Your task to perform on an android device: set the timer Image 0: 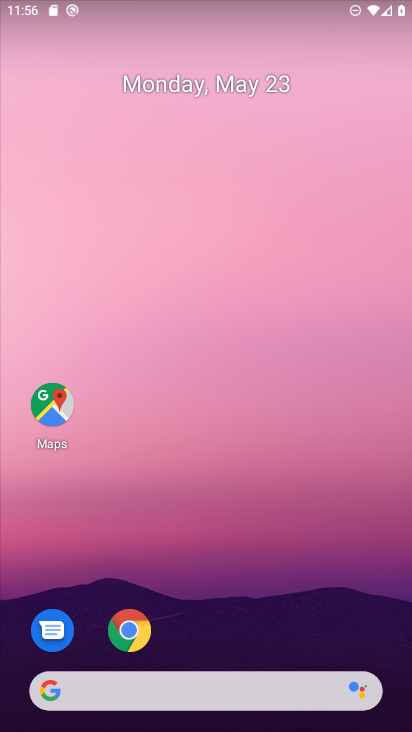
Step 0: drag from (191, 645) to (292, 181)
Your task to perform on an android device: set the timer Image 1: 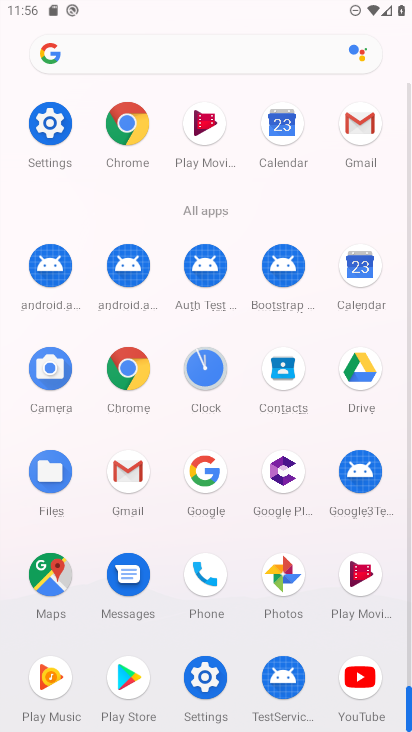
Step 1: click (203, 369)
Your task to perform on an android device: set the timer Image 2: 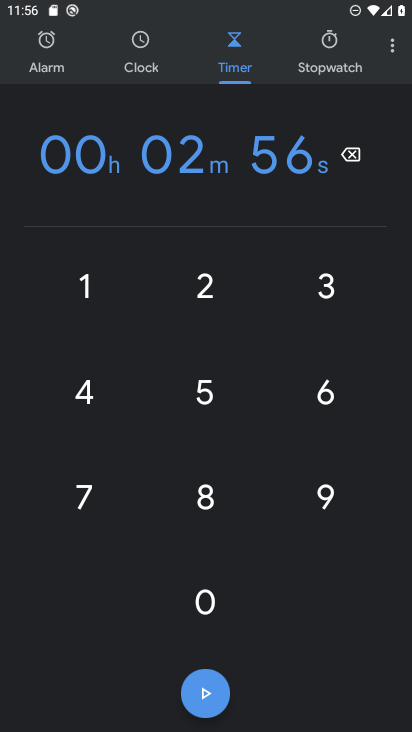
Step 2: click (326, 276)
Your task to perform on an android device: set the timer Image 3: 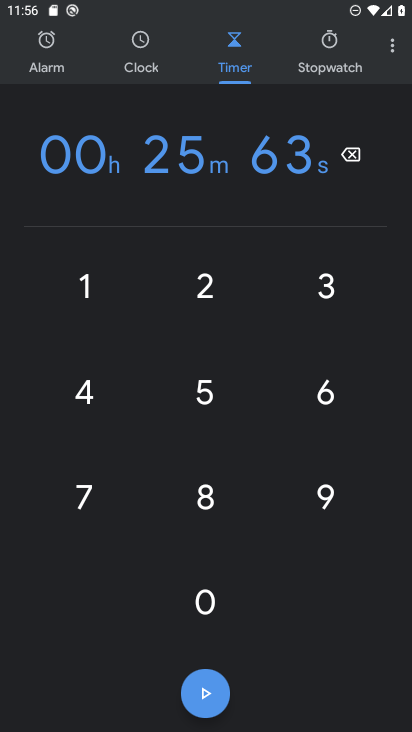
Step 3: task complete